Your task to perform on an android device: Go to wifi settings Image 0: 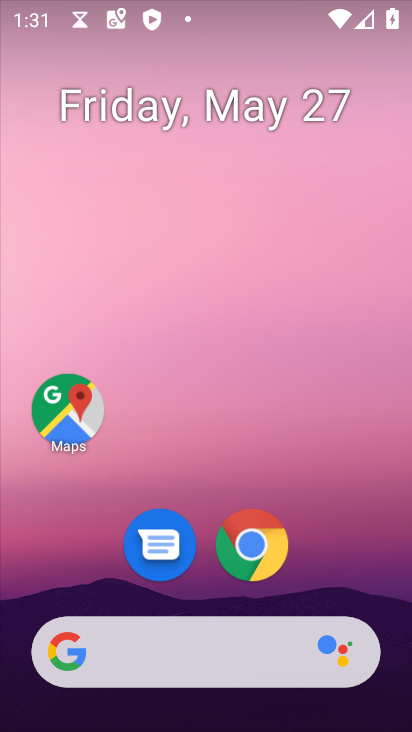
Step 0: drag from (335, 549) to (162, 21)
Your task to perform on an android device: Go to wifi settings Image 1: 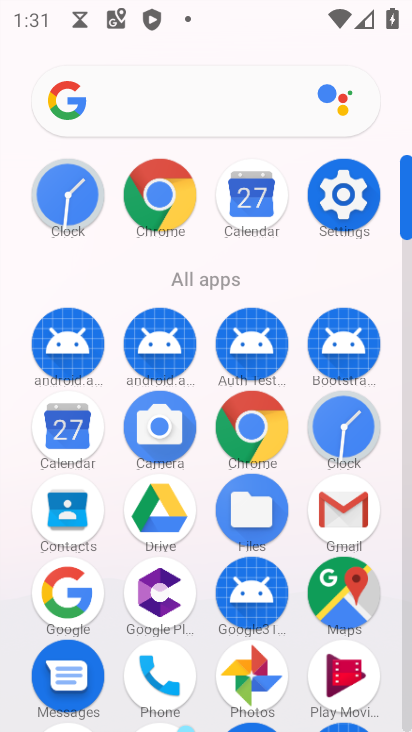
Step 1: click (351, 203)
Your task to perform on an android device: Go to wifi settings Image 2: 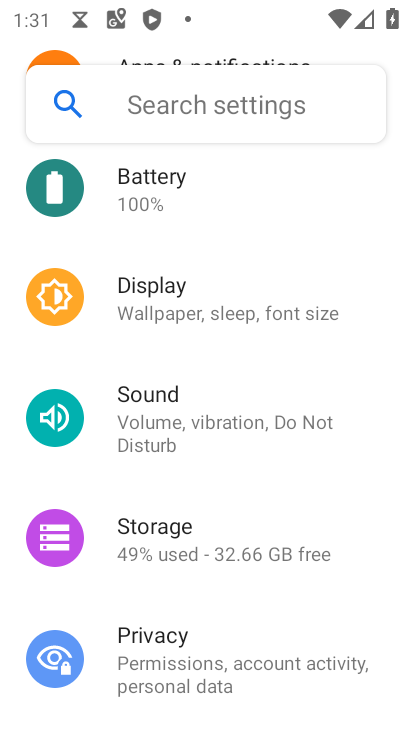
Step 2: drag from (265, 214) to (258, 690)
Your task to perform on an android device: Go to wifi settings Image 3: 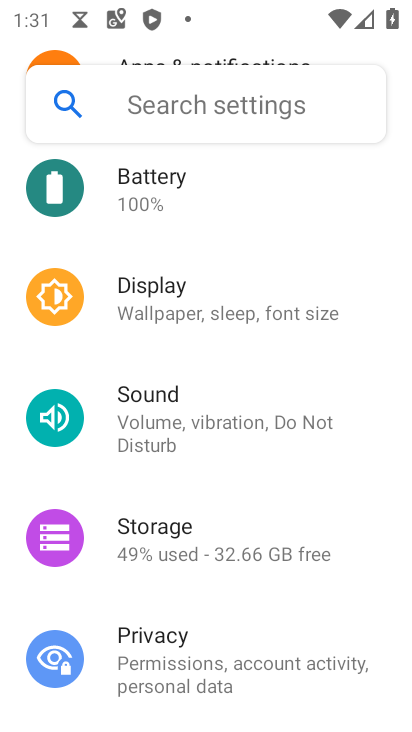
Step 3: drag from (215, 239) to (191, 629)
Your task to perform on an android device: Go to wifi settings Image 4: 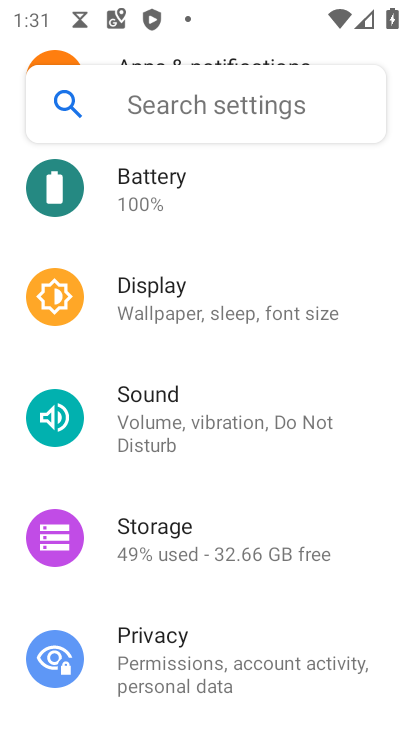
Step 4: drag from (160, 185) to (173, 616)
Your task to perform on an android device: Go to wifi settings Image 5: 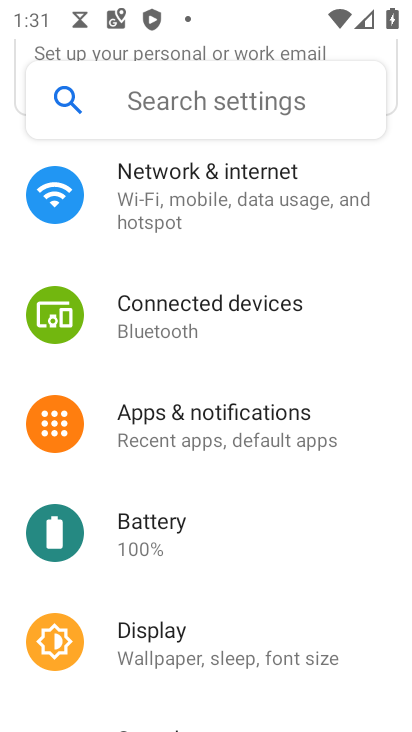
Step 5: drag from (219, 242) to (192, 635)
Your task to perform on an android device: Go to wifi settings Image 6: 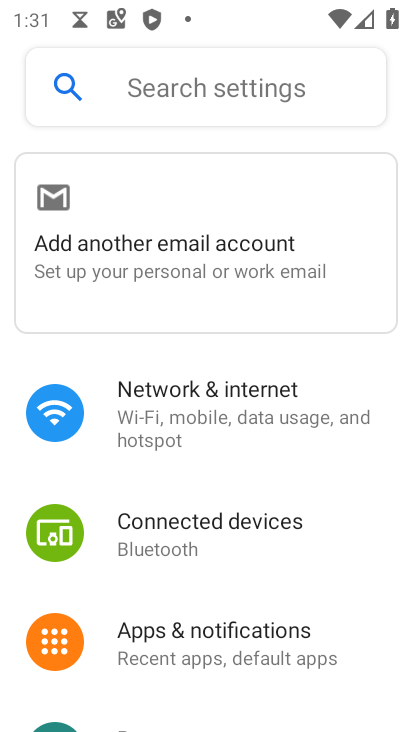
Step 6: click (246, 408)
Your task to perform on an android device: Go to wifi settings Image 7: 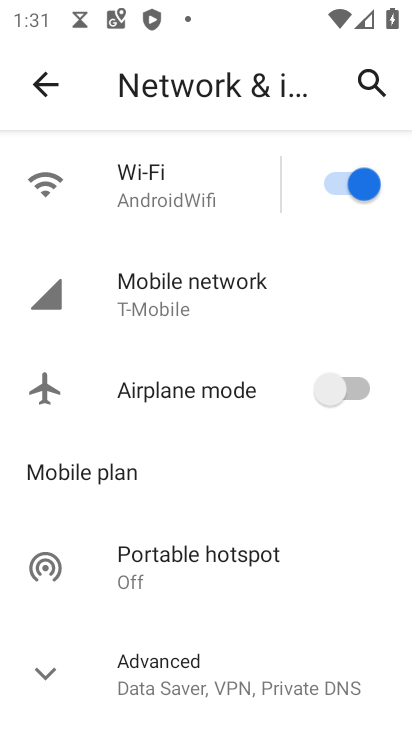
Step 7: click (176, 165)
Your task to perform on an android device: Go to wifi settings Image 8: 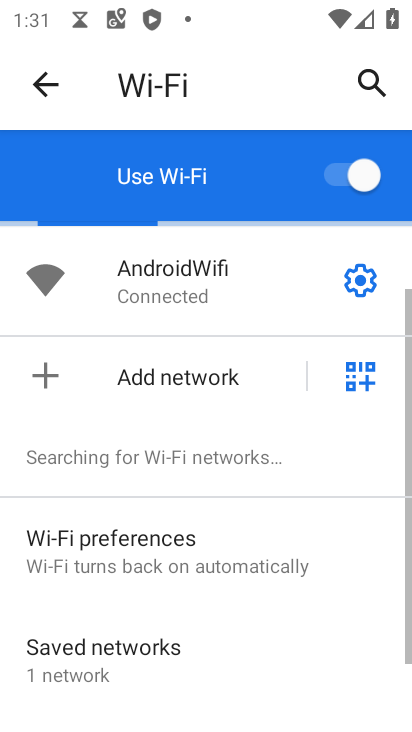
Step 8: task complete